Your task to perform on an android device: Open Amazon Image 0: 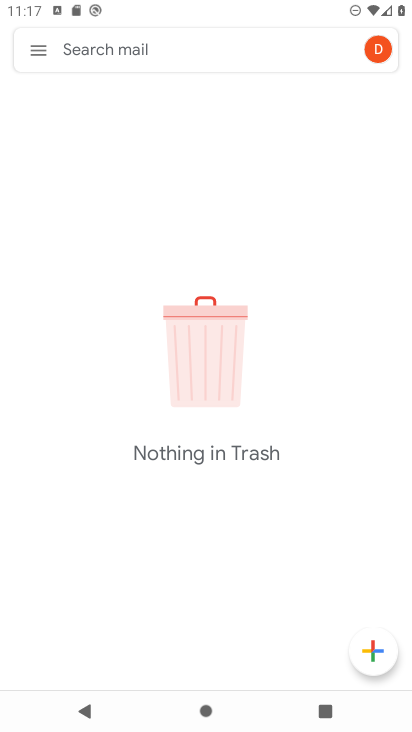
Step 0: press home button
Your task to perform on an android device: Open Amazon Image 1: 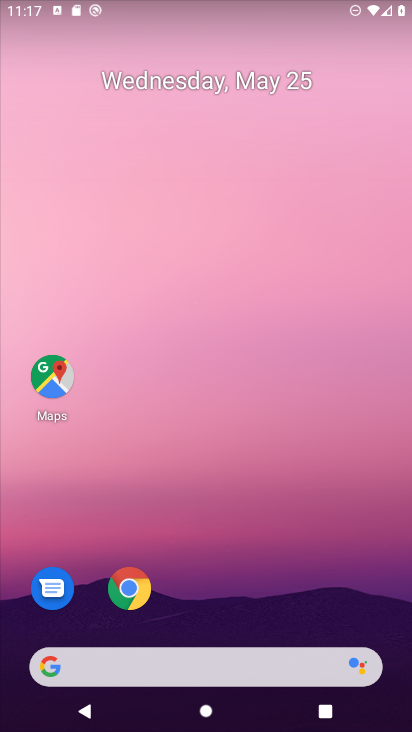
Step 1: click (118, 582)
Your task to perform on an android device: Open Amazon Image 2: 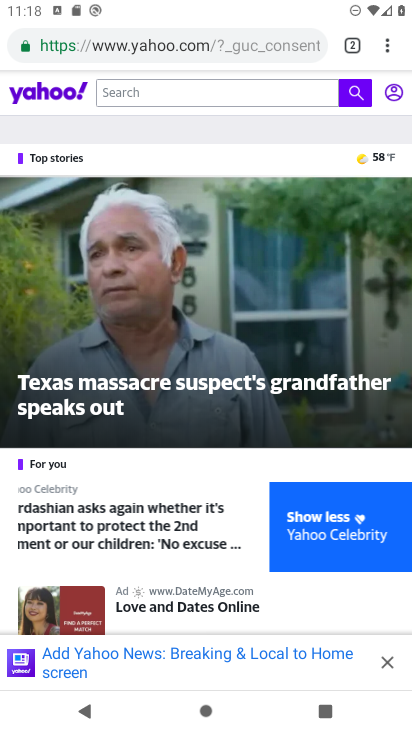
Step 2: click (358, 46)
Your task to perform on an android device: Open Amazon Image 3: 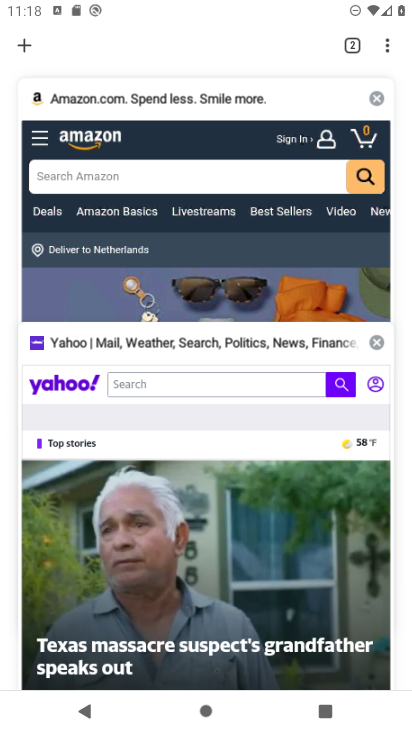
Step 3: click (376, 100)
Your task to perform on an android device: Open Amazon Image 4: 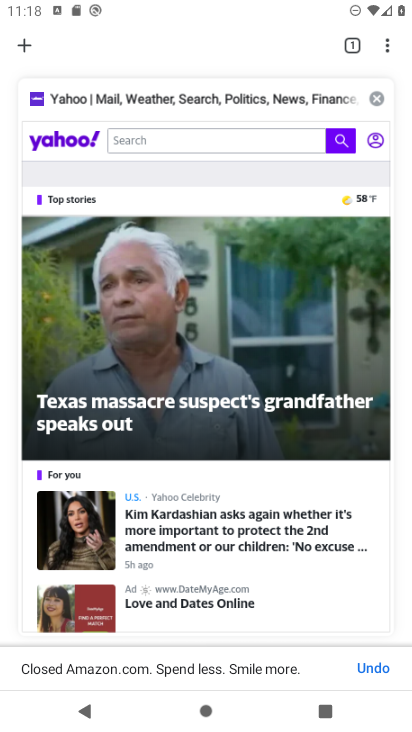
Step 4: click (377, 102)
Your task to perform on an android device: Open Amazon Image 5: 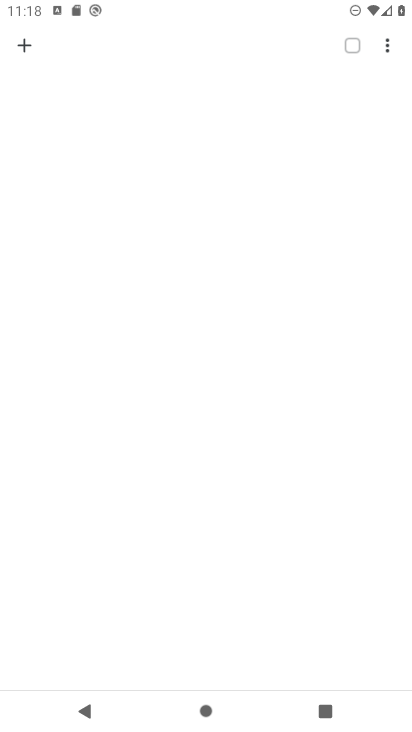
Step 5: click (18, 42)
Your task to perform on an android device: Open Amazon Image 6: 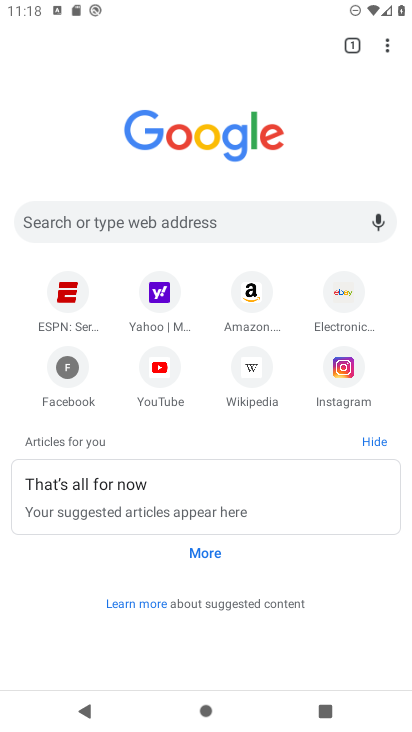
Step 6: click (244, 296)
Your task to perform on an android device: Open Amazon Image 7: 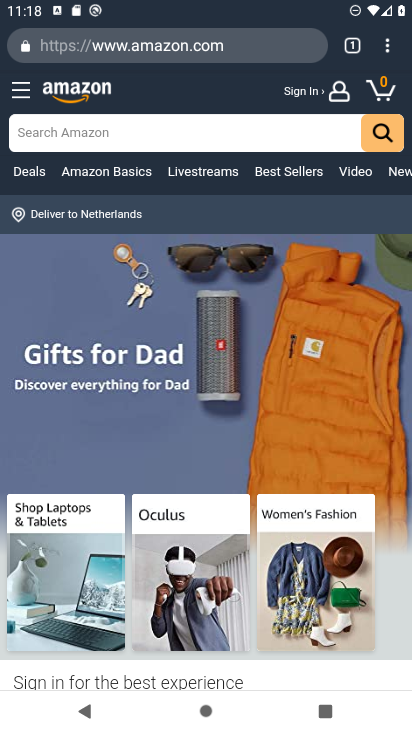
Step 7: task complete